Your task to perform on an android device: Open calendar and show me the fourth week of next month Image 0: 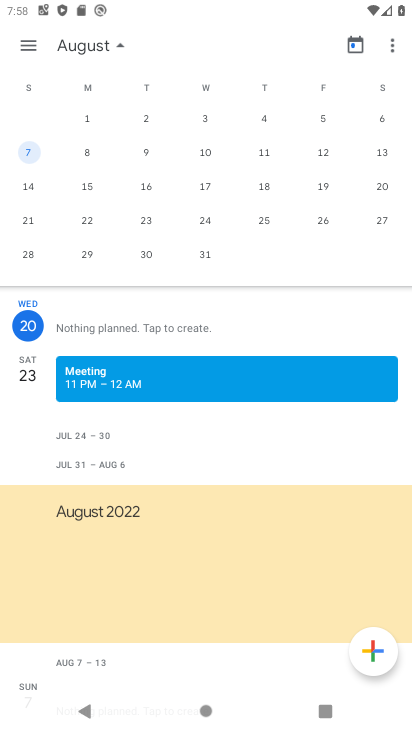
Step 0: click (25, 219)
Your task to perform on an android device: Open calendar and show me the fourth week of next month Image 1: 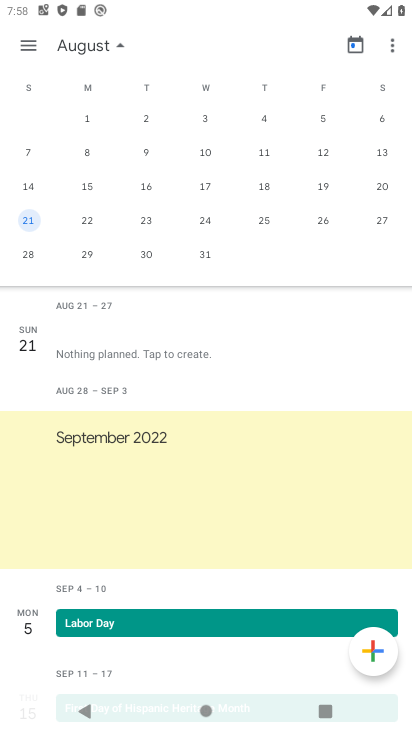
Step 1: task complete